Your task to perform on an android device: Open calendar and show me the fourth week of next month Image 0: 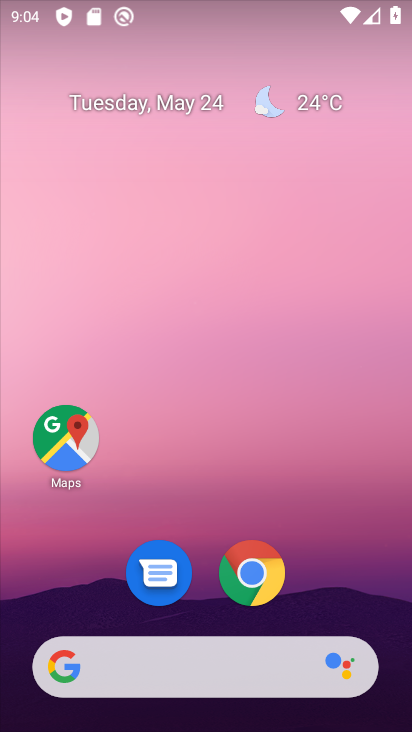
Step 0: drag from (380, 616) to (359, 86)
Your task to perform on an android device: Open calendar and show me the fourth week of next month Image 1: 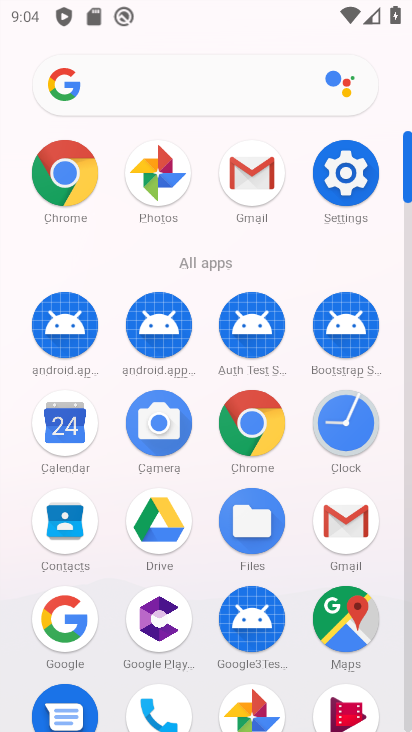
Step 1: click (408, 683)
Your task to perform on an android device: Open calendar and show me the fourth week of next month Image 2: 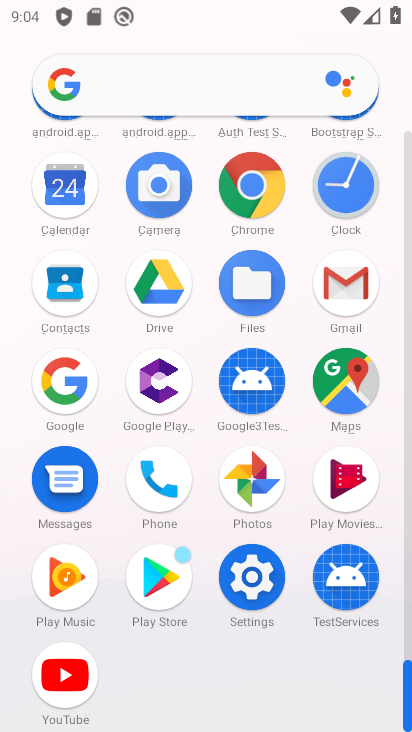
Step 2: click (66, 181)
Your task to perform on an android device: Open calendar and show me the fourth week of next month Image 3: 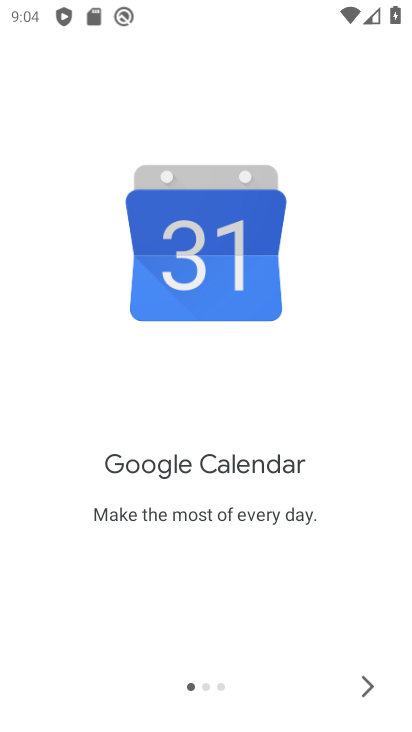
Step 3: click (366, 689)
Your task to perform on an android device: Open calendar and show me the fourth week of next month Image 4: 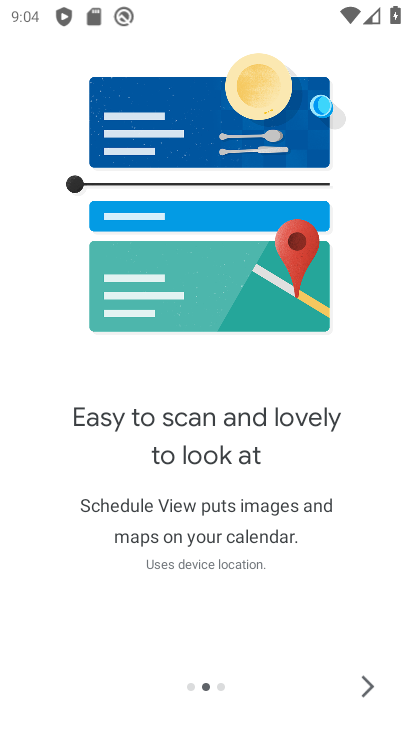
Step 4: click (366, 689)
Your task to perform on an android device: Open calendar and show me the fourth week of next month Image 5: 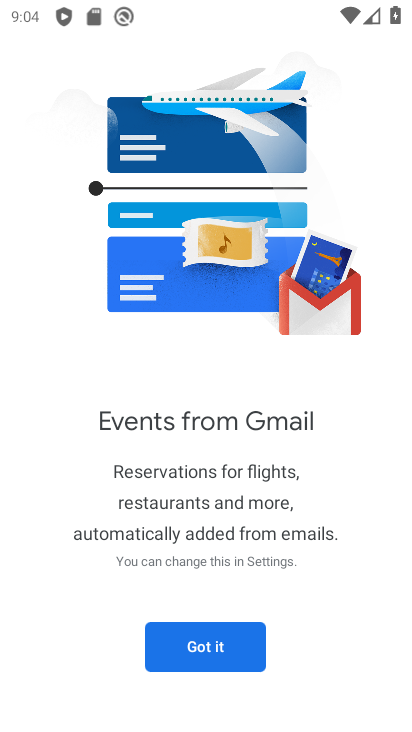
Step 5: click (202, 646)
Your task to perform on an android device: Open calendar and show me the fourth week of next month Image 6: 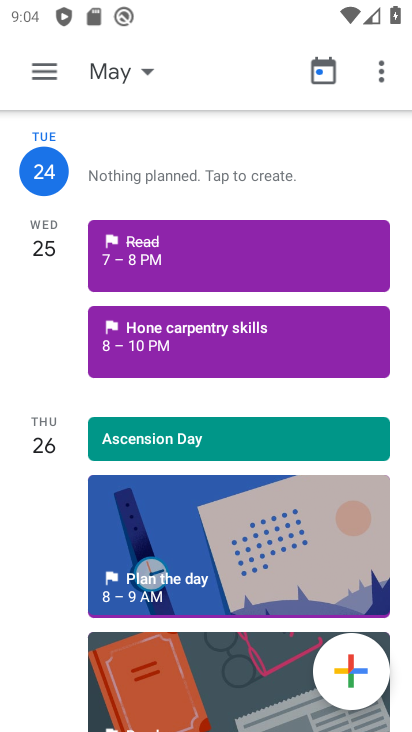
Step 6: click (47, 67)
Your task to perform on an android device: Open calendar and show me the fourth week of next month Image 7: 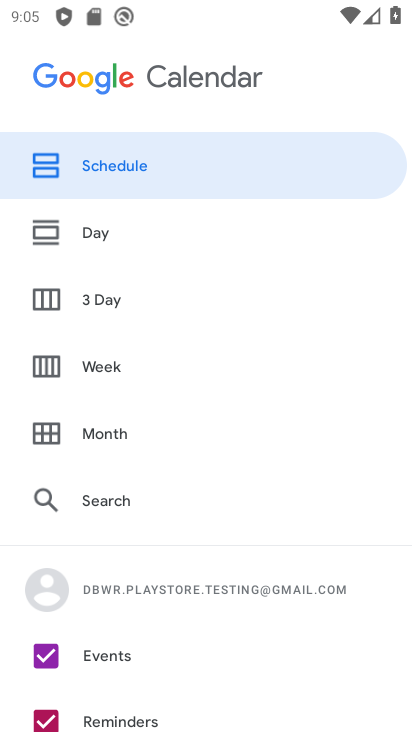
Step 7: click (109, 363)
Your task to perform on an android device: Open calendar and show me the fourth week of next month Image 8: 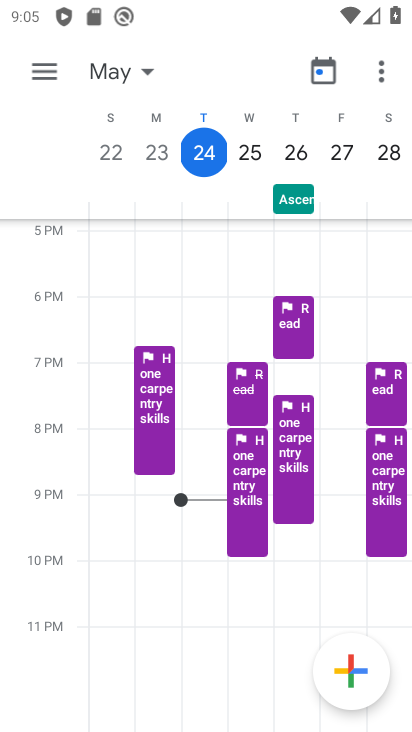
Step 8: click (149, 69)
Your task to perform on an android device: Open calendar and show me the fourth week of next month Image 9: 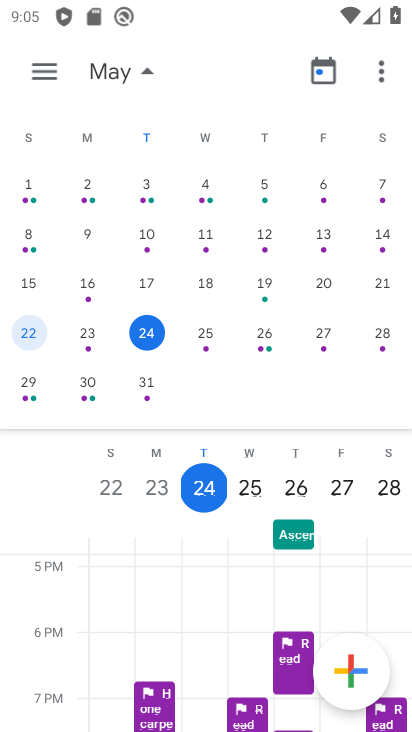
Step 9: drag from (380, 295) to (33, 275)
Your task to perform on an android device: Open calendar and show me the fourth week of next month Image 10: 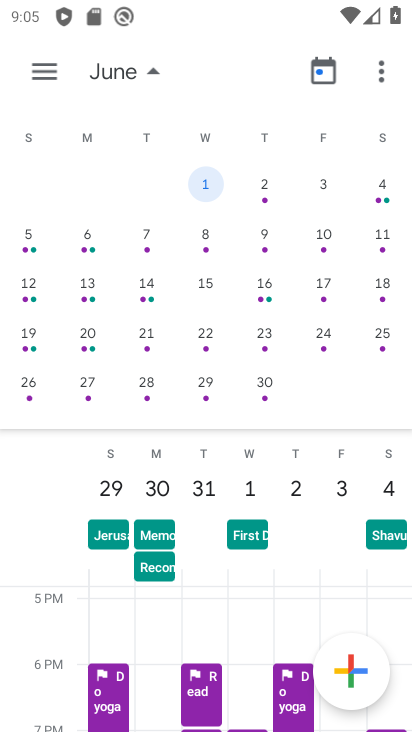
Step 10: click (29, 390)
Your task to perform on an android device: Open calendar and show me the fourth week of next month Image 11: 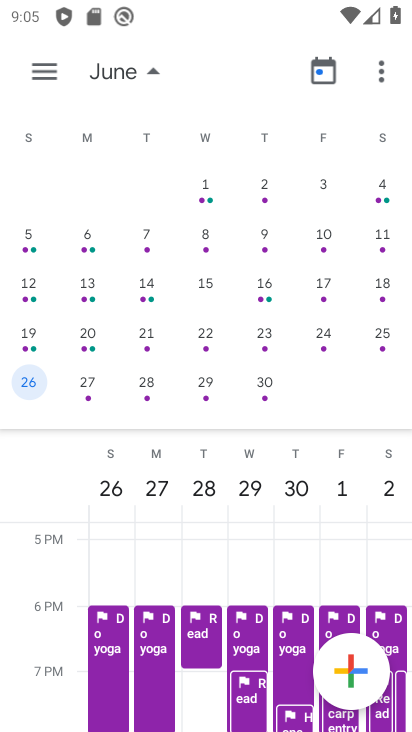
Step 11: task complete